Your task to perform on an android device: change the clock display to digital Image 0: 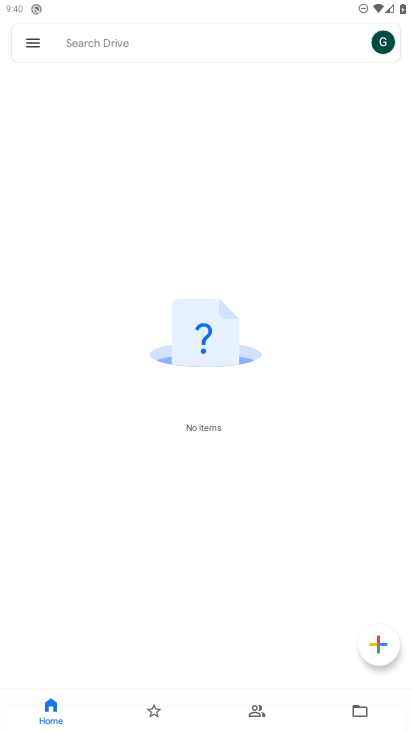
Step 0: press home button
Your task to perform on an android device: change the clock display to digital Image 1: 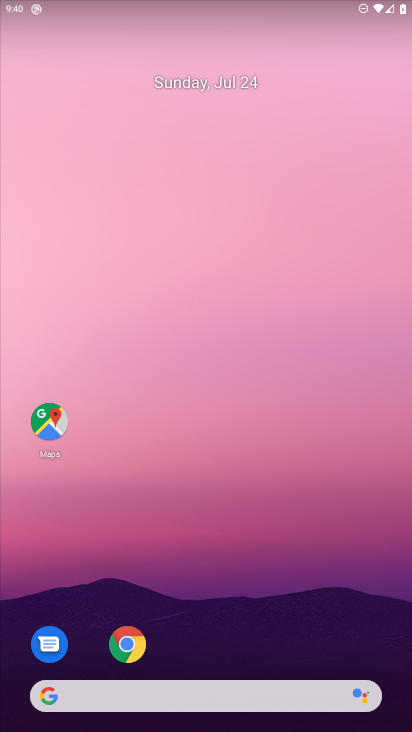
Step 1: drag from (272, 620) to (295, 75)
Your task to perform on an android device: change the clock display to digital Image 2: 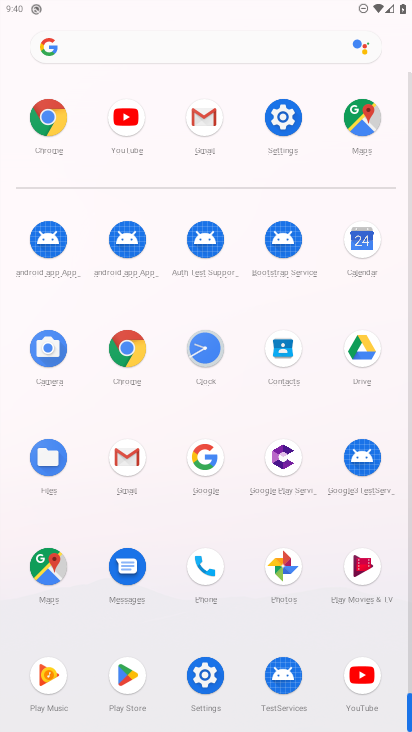
Step 2: click (207, 666)
Your task to perform on an android device: change the clock display to digital Image 3: 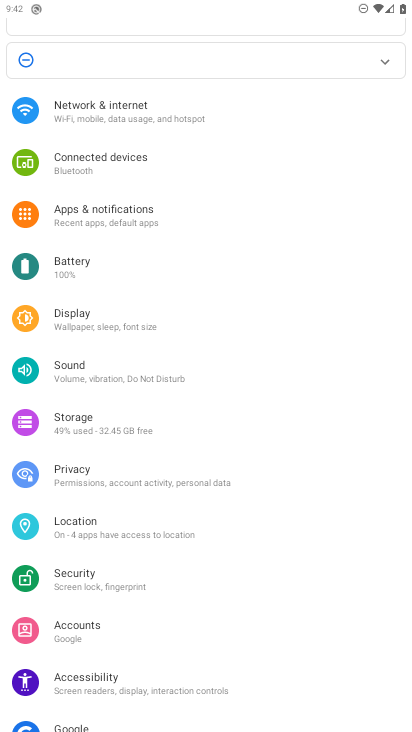
Step 3: press home button
Your task to perform on an android device: change the clock display to digital Image 4: 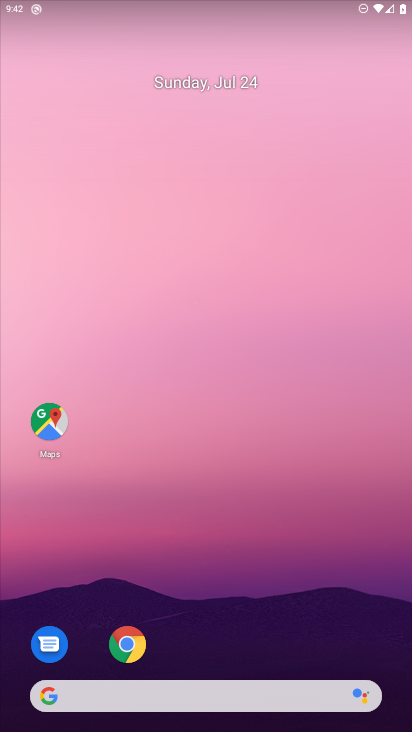
Step 4: drag from (184, 581) to (205, 139)
Your task to perform on an android device: change the clock display to digital Image 5: 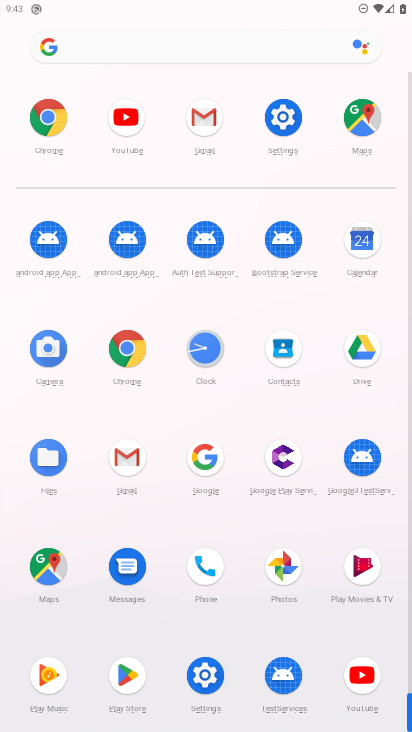
Step 5: click (194, 363)
Your task to perform on an android device: change the clock display to digital Image 6: 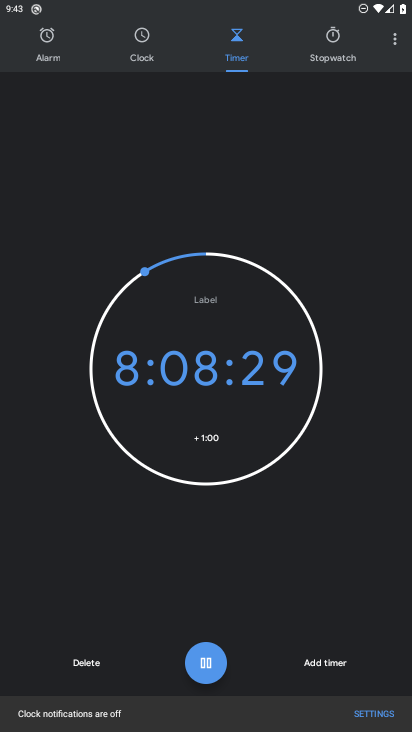
Step 6: click (395, 40)
Your task to perform on an android device: change the clock display to digital Image 7: 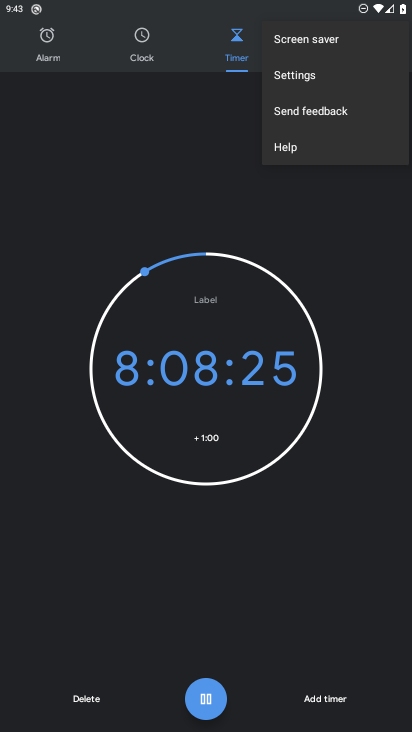
Step 7: click (300, 68)
Your task to perform on an android device: change the clock display to digital Image 8: 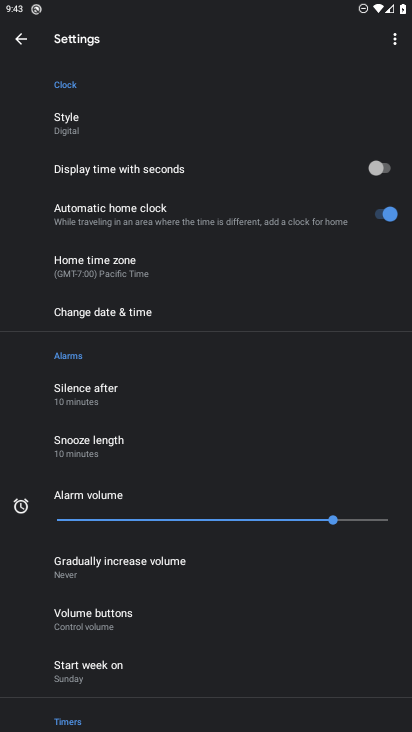
Step 8: click (153, 321)
Your task to perform on an android device: change the clock display to digital Image 9: 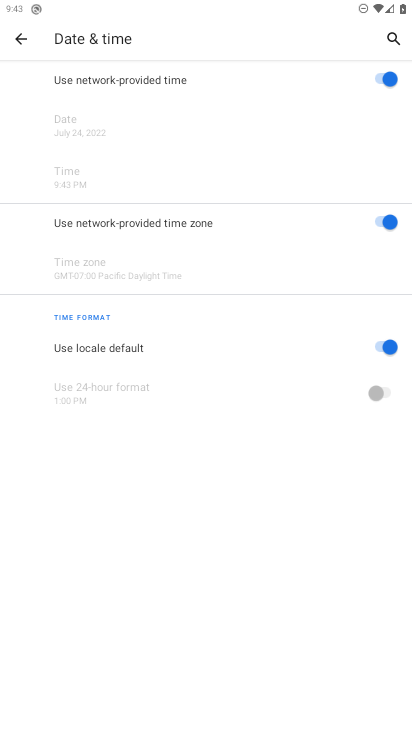
Step 9: click (17, 39)
Your task to perform on an android device: change the clock display to digital Image 10: 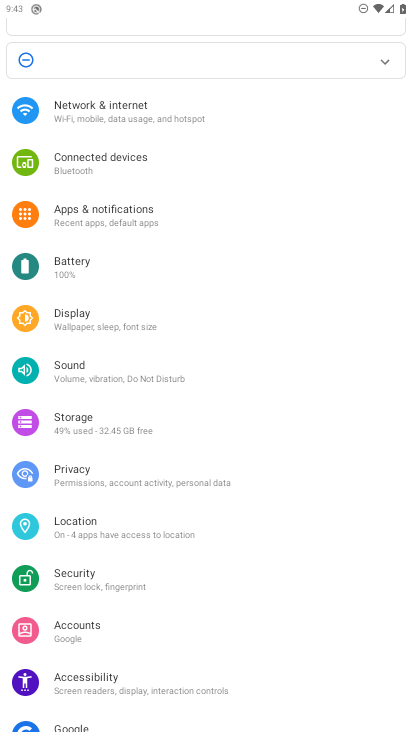
Step 10: press home button
Your task to perform on an android device: change the clock display to digital Image 11: 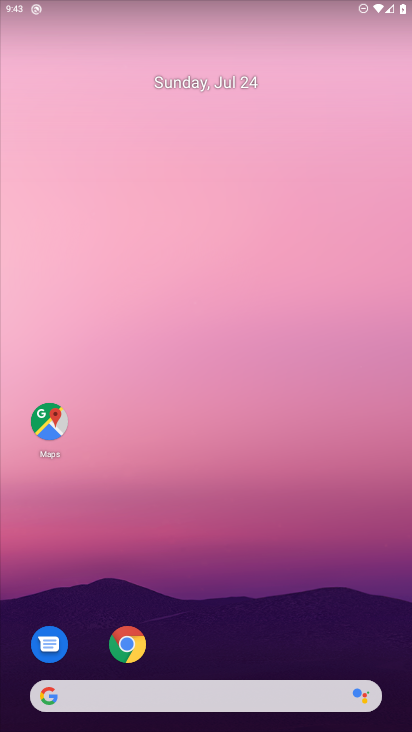
Step 11: drag from (196, 641) to (224, 97)
Your task to perform on an android device: change the clock display to digital Image 12: 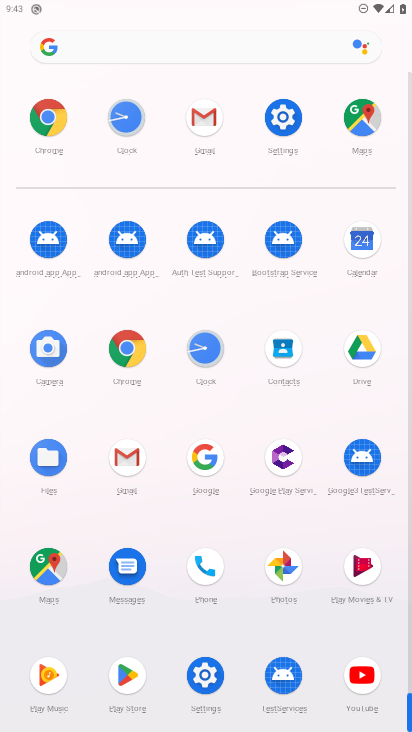
Step 12: click (205, 344)
Your task to perform on an android device: change the clock display to digital Image 13: 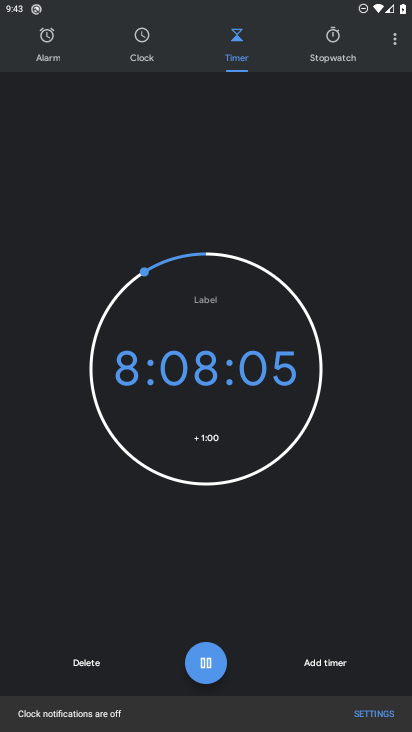
Step 13: click (394, 41)
Your task to perform on an android device: change the clock display to digital Image 14: 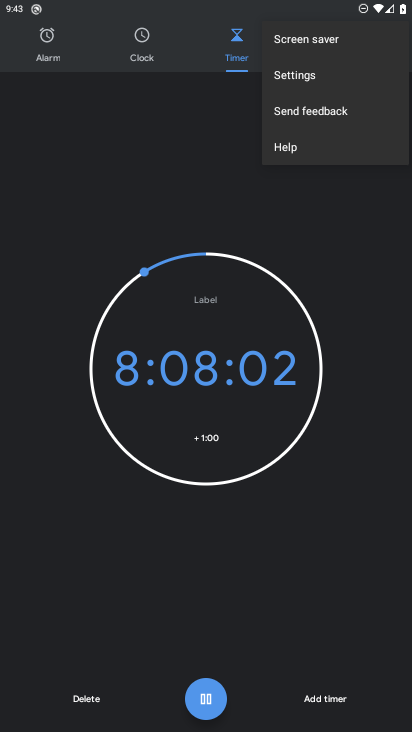
Step 14: click (311, 76)
Your task to perform on an android device: change the clock display to digital Image 15: 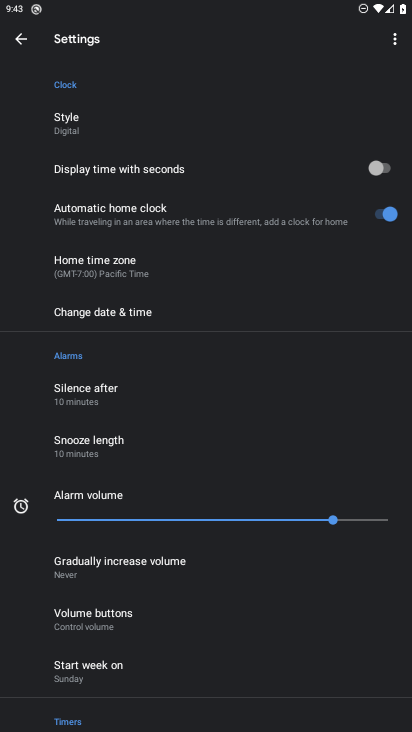
Step 15: click (77, 114)
Your task to perform on an android device: change the clock display to digital Image 16: 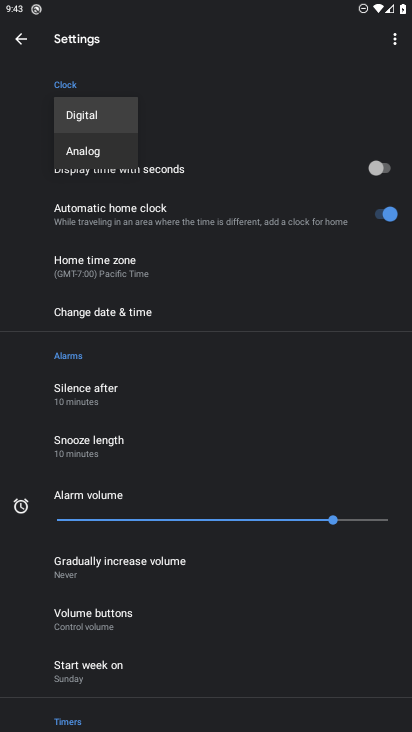
Step 16: click (78, 114)
Your task to perform on an android device: change the clock display to digital Image 17: 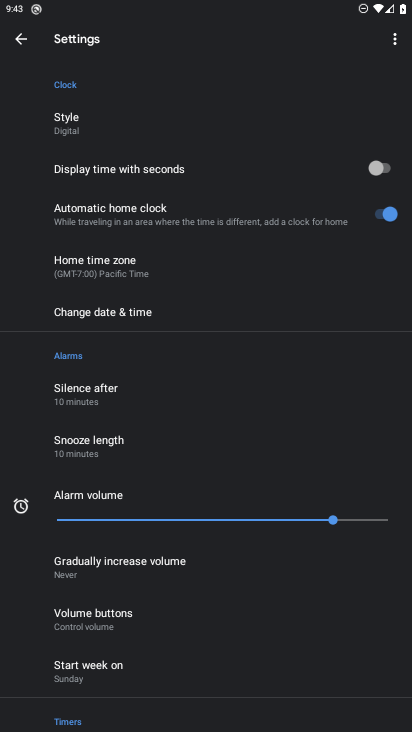
Step 17: task complete